Your task to perform on an android device: check data usage Image 0: 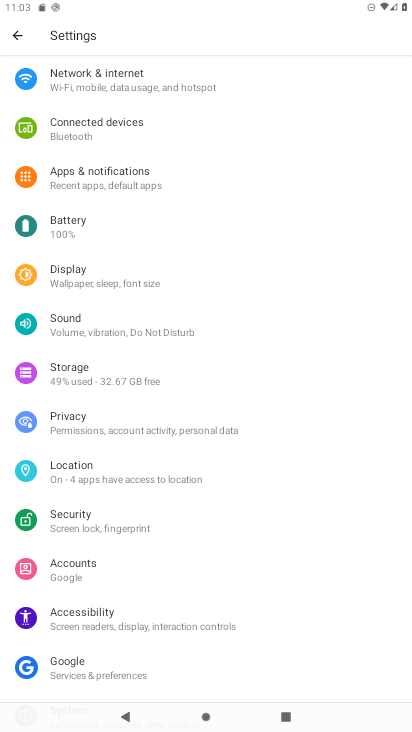
Step 0: click (127, 96)
Your task to perform on an android device: check data usage Image 1: 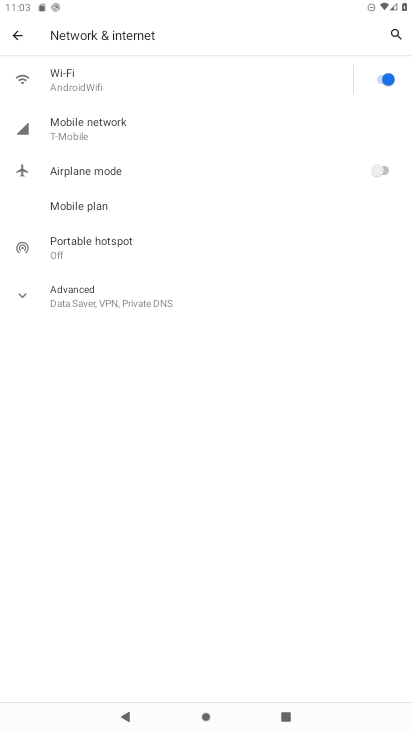
Step 1: click (138, 137)
Your task to perform on an android device: check data usage Image 2: 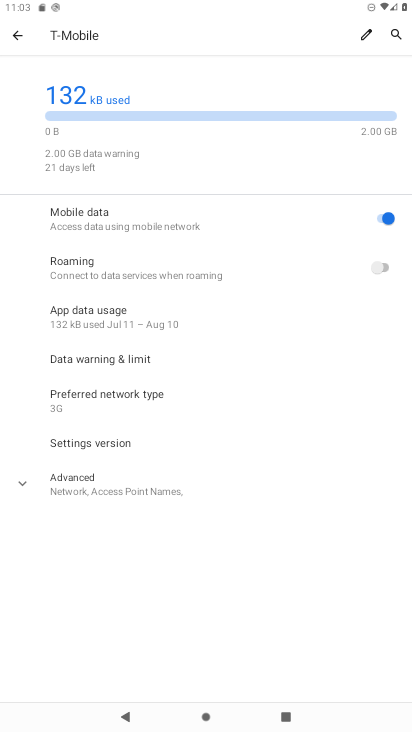
Step 2: click (163, 334)
Your task to perform on an android device: check data usage Image 3: 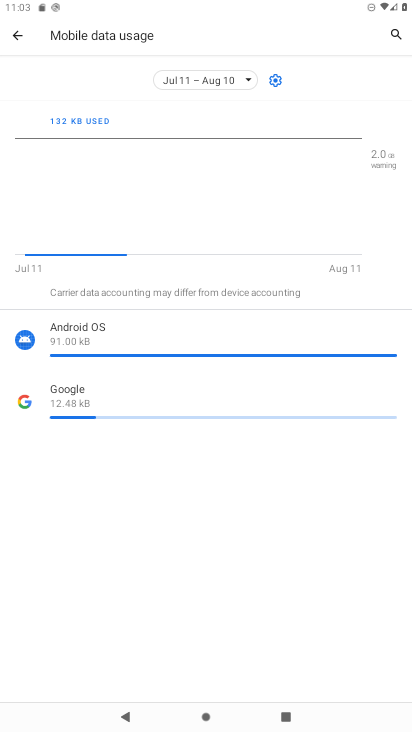
Step 3: task complete